Your task to perform on an android device: open sync settings in chrome Image 0: 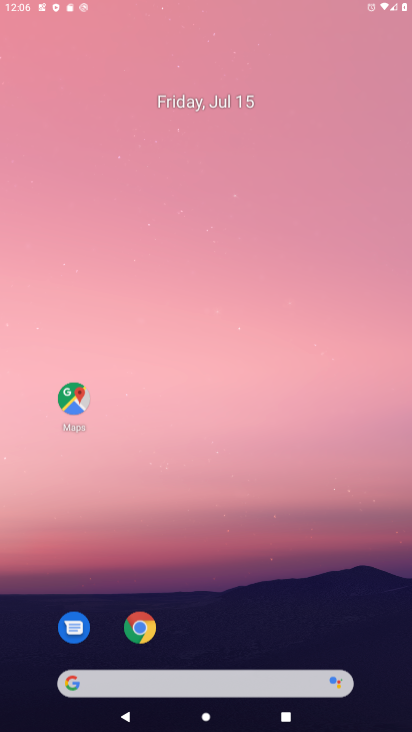
Step 0: press home button
Your task to perform on an android device: open sync settings in chrome Image 1: 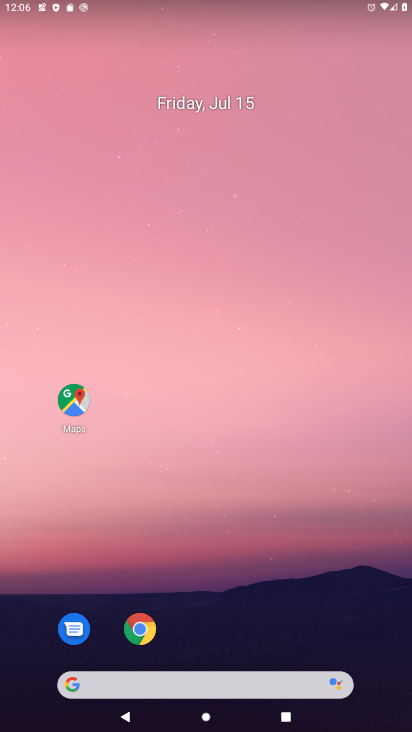
Step 1: drag from (248, 644) to (274, 309)
Your task to perform on an android device: open sync settings in chrome Image 2: 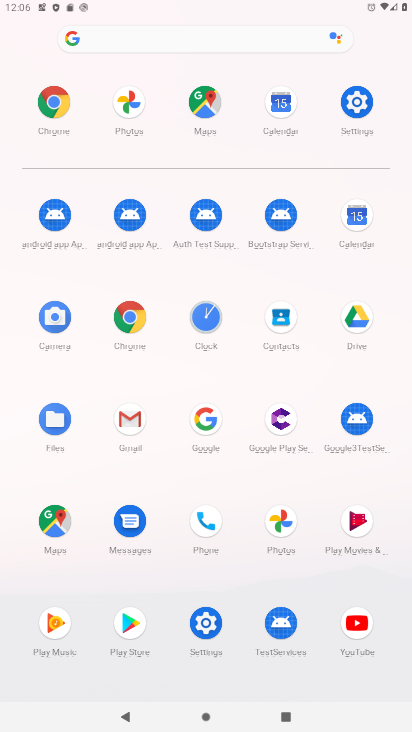
Step 2: click (58, 102)
Your task to perform on an android device: open sync settings in chrome Image 3: 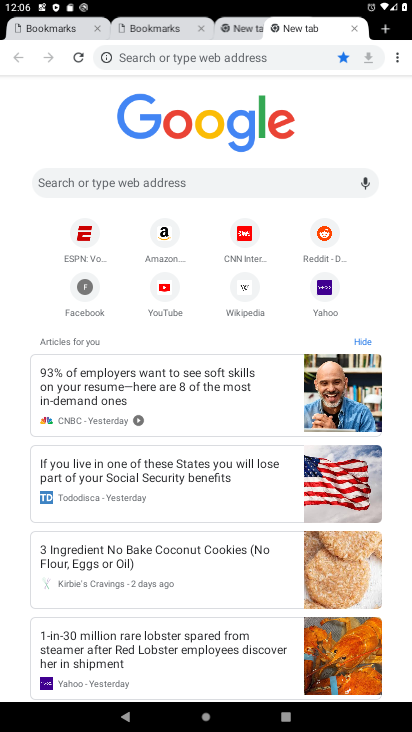
Step 3: drag from (397, 56) to (273, 265)
Your task to perform on an android device: open sync settings in chrome Image 4: 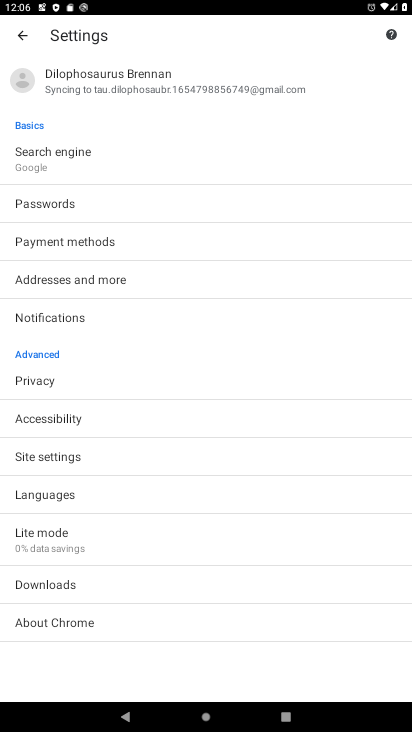
Step 4: click (159, 86)
Your task to perform on an android device: open sync settings in chrome Image 5: 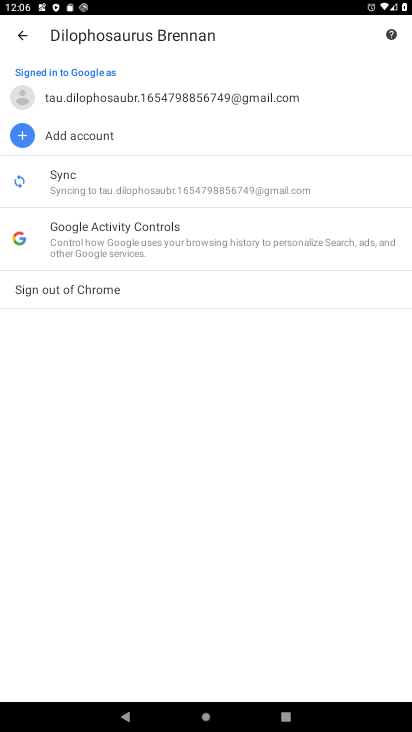
Step 5: click (68, 188)
Your task to perform on an android device: open sync settings in chrome Image 6: 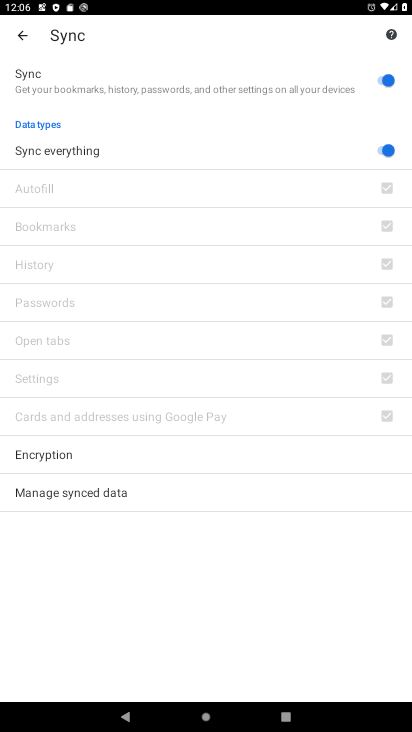
Step 6: task complete